Your task to perform on an android device: Open Android settings Image 0: 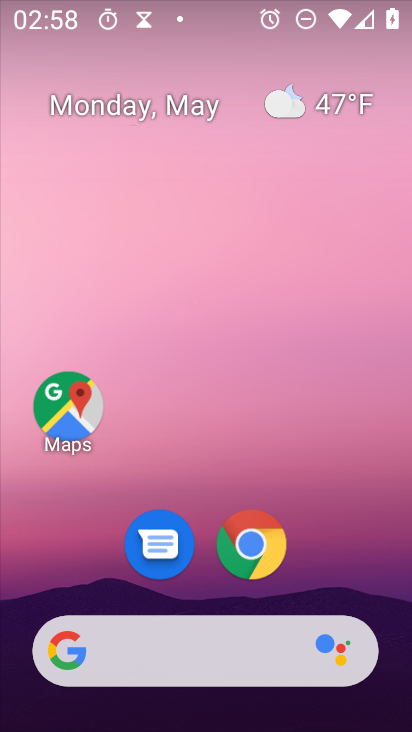
Step 0: drag from (277, 612) to (305, 5)
Your task to perform on an android device: Open Android settings Image 1: 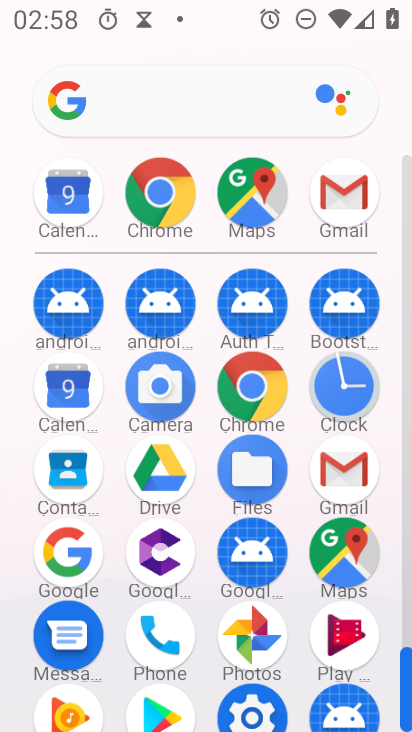
Step 1: drag from (294, 704) to (291, 419)
Your task to perform on an android device: Open Android settings Image 2: 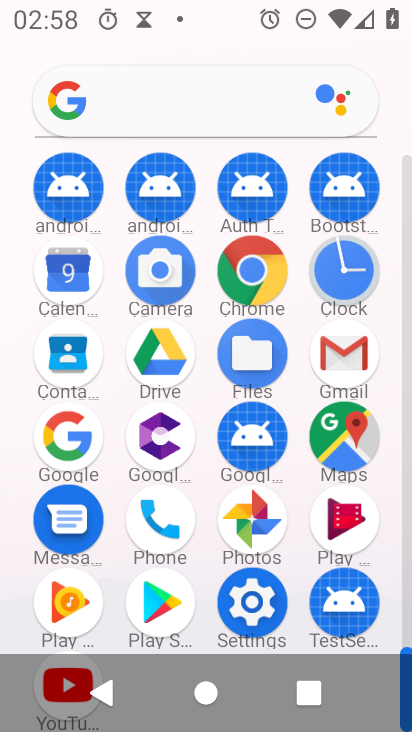
Step 2: click (259, 609)
Your task to perform on an android device: Open Android settings Image 3: 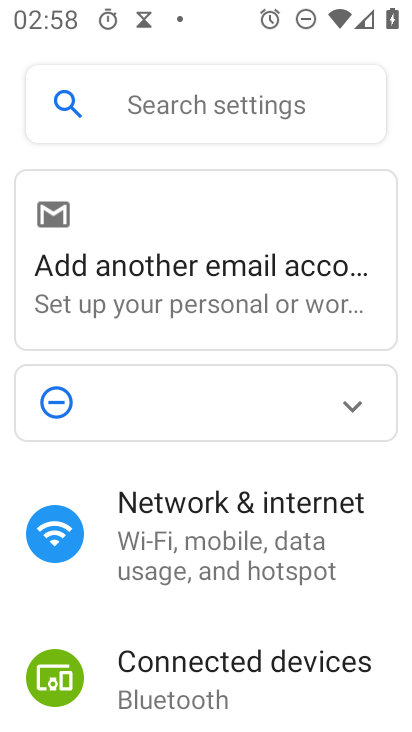
Step 3: drag from (286, 677) to (298, 79)
Your task to perform on an android device: Open Android settings Image 4: 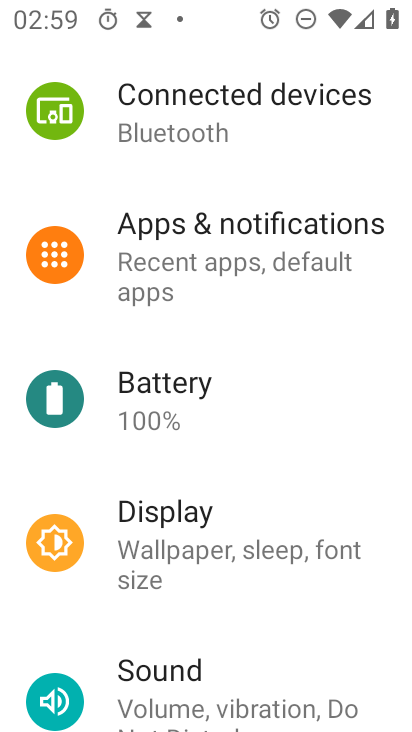
Step 4: drag from (281, 658) to (256, 247)
Your task to perform on an android device: Open Android settings Image 5: 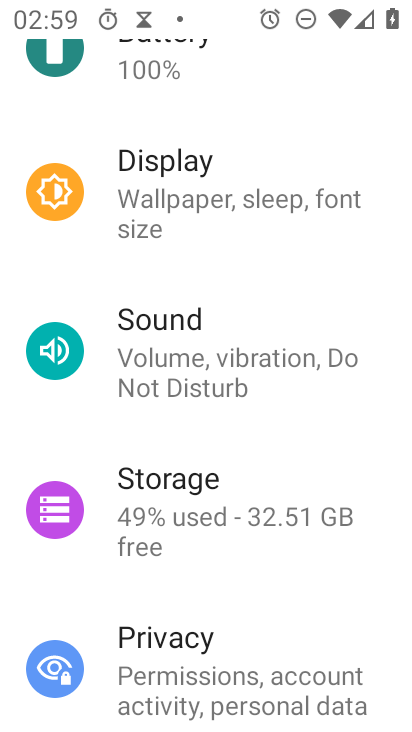
Step 5: drag from (295, 677) to (290, 147)
Your task to perform on an android device: Open Android settings Image 6: 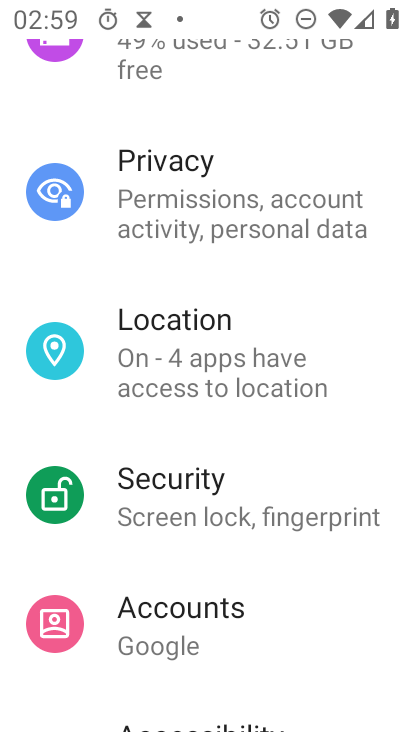
Step 6: drag from (236, 682) to (271, 71)
Your task to perform on an android device: Open Android settings Image 7: 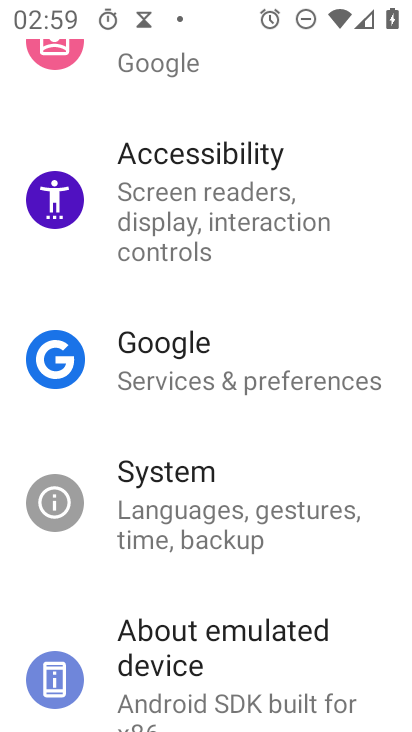
Step 7: drag from (260, 706) to (292, 94)
Your task to perform on an android device: Open Android settings Image 8: 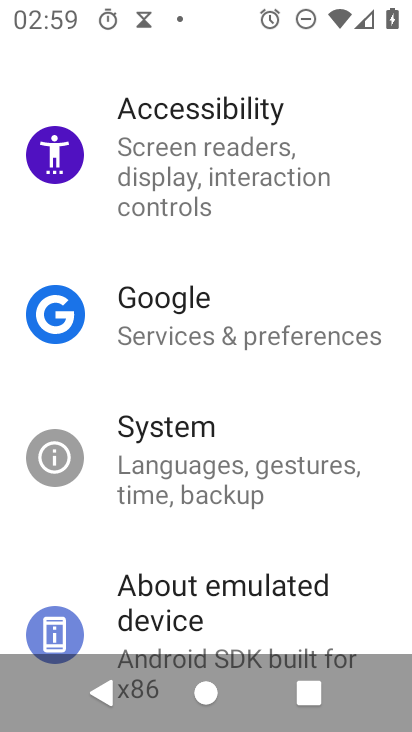
Step 8: click (275, 632)
Your task to perform on an android device: Open Android settings Image 9: 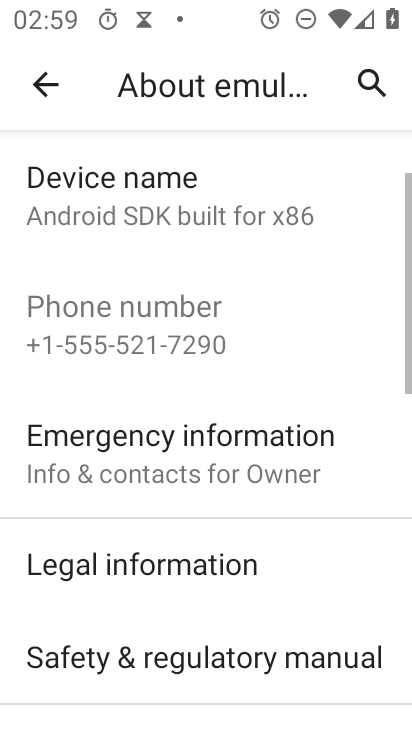
Step 9: task complete